Your task to perform on an android device: all mails in gmail Image 0: 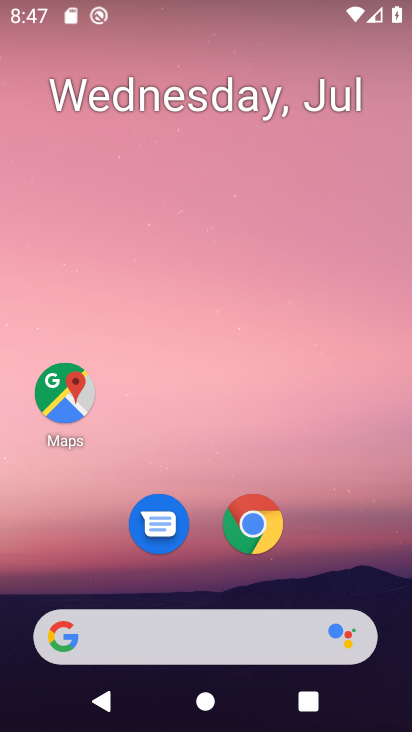
Step 0: press home button
Your task to perform on an android device: all mails in gmail Image 1: 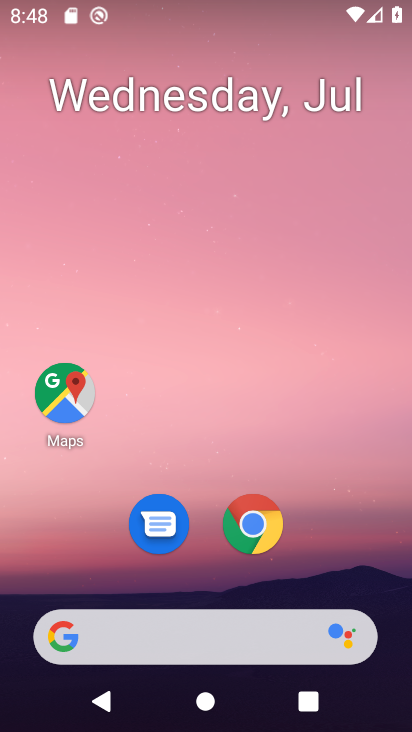
Step 1: drag from (214, 626) to (294, 88)
Your task to perform on an android device: all mails in gmail Image 2: 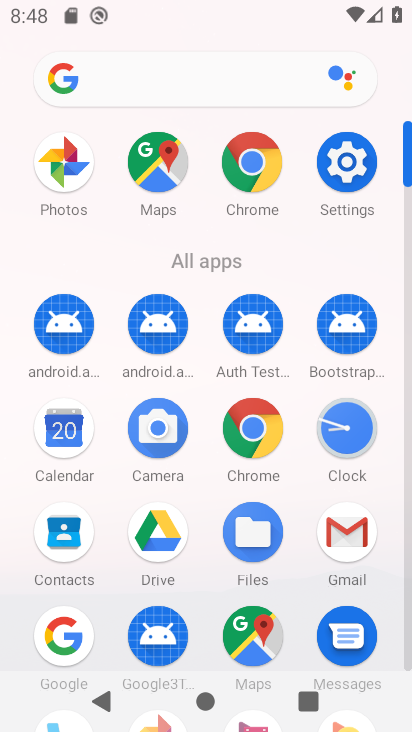
Step 2: click (348, 537)
Your task to perform on an android device: all mails in gmail Image 3: 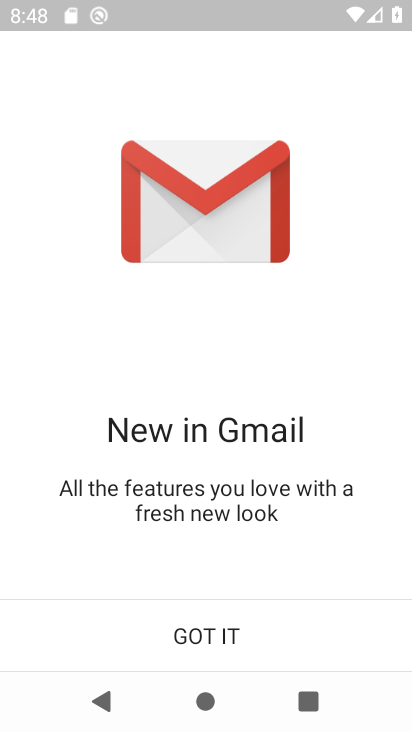
Step 3: click (215, 641)
Your task to perform on an android device: all mails in gmail Image 4: 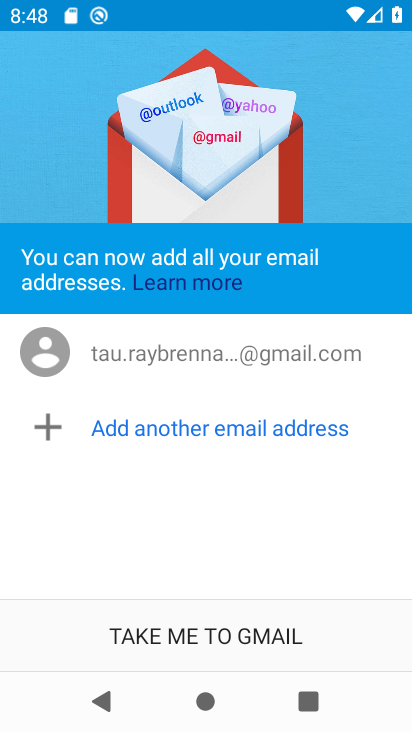
Step 4: click (215, 641)
Your task to perform on an android device: all mails in gmail Image 5: 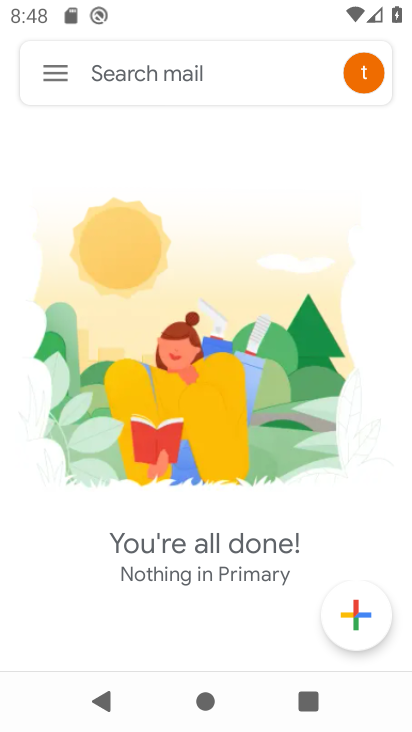
Step 5: click (52, 68)
Your task to perform on an android device: all mails in gmail Image 6: 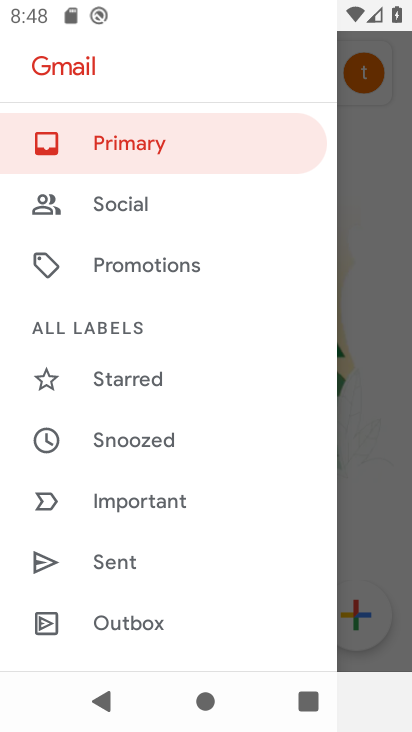
Step 6: drag from (182, 593) to (200, 228)
Your task to perform on an android device: all mails in gmail Image 7: 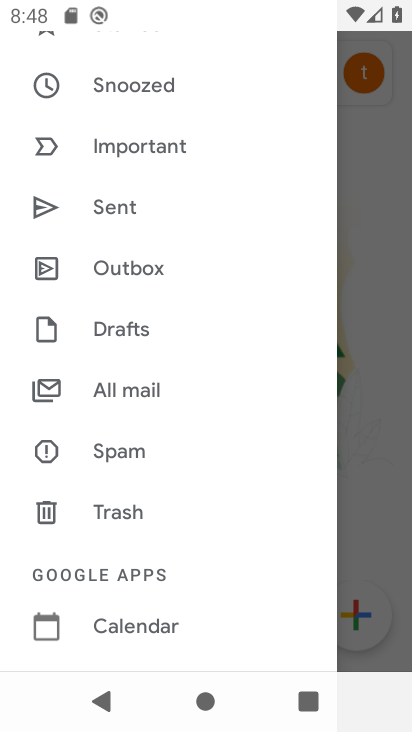
Step 7: click (139, 386)
Your task to perform on an android device: all mails in gmail Image 8: 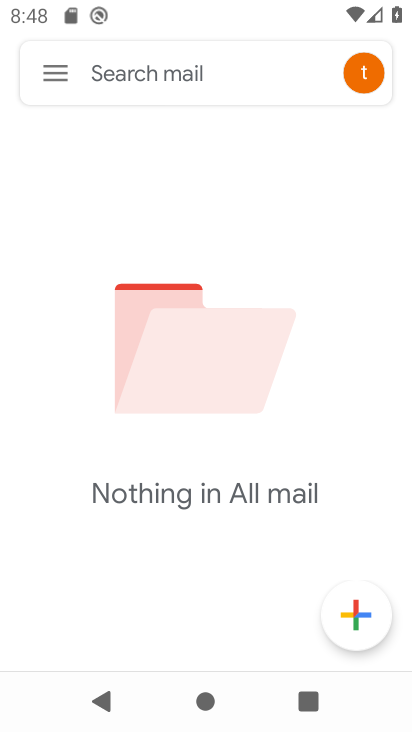
Step 8: task complete